Your task to perform on an android device: turn off picture-in-picture Image 0: 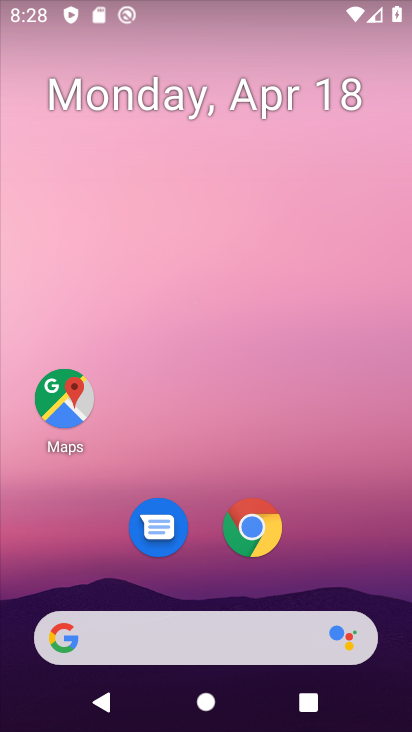
Step 0: drag from (202, 473) to (221, 1)
Your task to perform on an android device: turn off picture-in-picture Image 1: 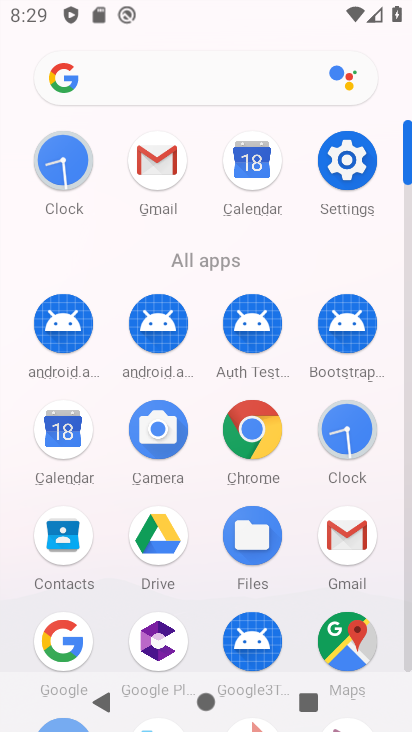
Step 1: click (348, 166)
Your task to perform on an android device: turn off picture-in-picture Image 2: 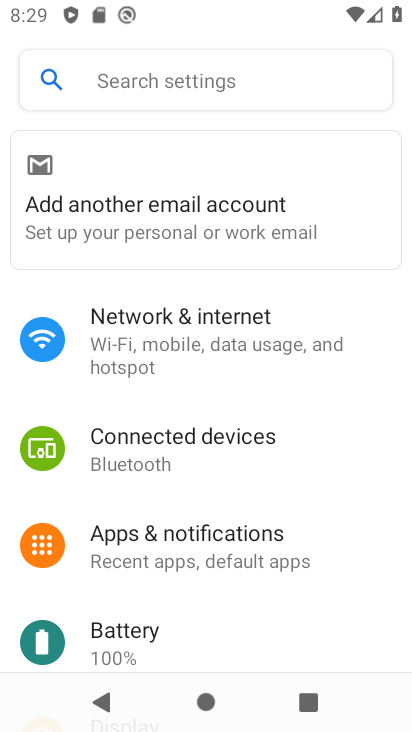
Step 2: click (187, 543)
Your task to perform on an android device: turn off picture-in-picture Image 3: 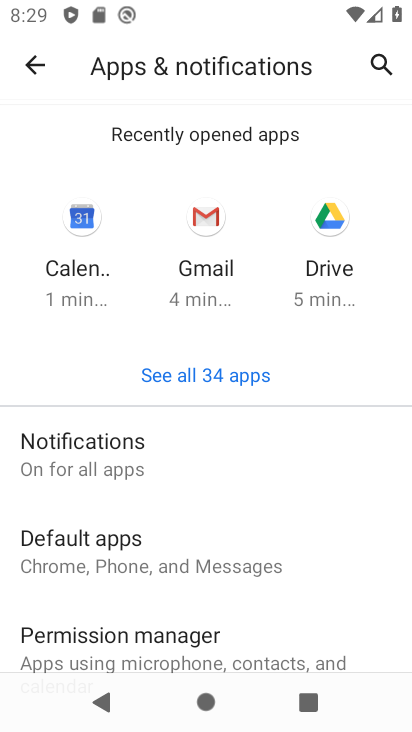
Step 3: drag from (191, 566) to (233, 206)
Your task to perform on an android device: turn off picture-in-picture Image 4: 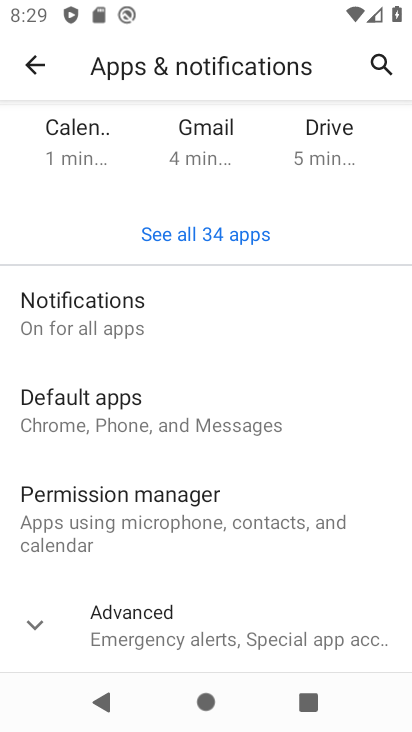
Step 4: click (208, 627)
Your task to perform on an android device: turn off picture-in-picture Image 5: 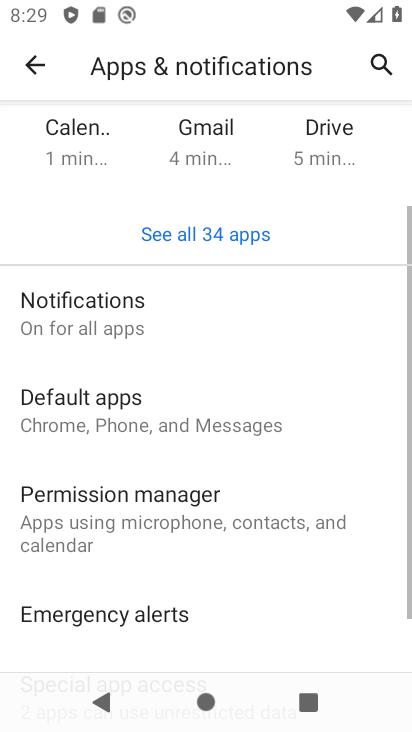
Step 5: drag from (212, 557) to (231, 237)
Your task to perform on an android device: turn off picture-in-picture Image 6: 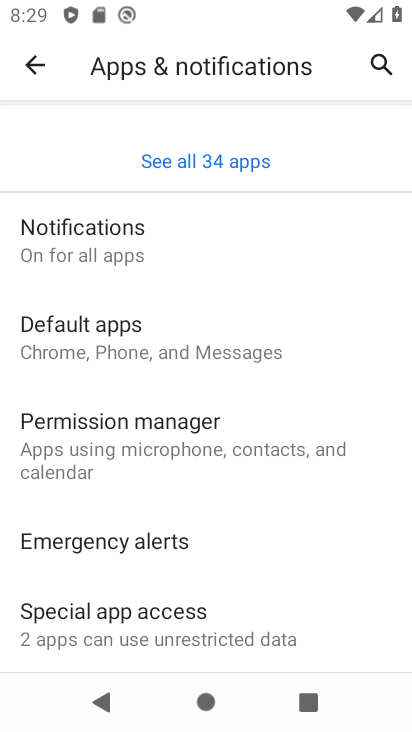
Step 6: click (200, 618)
Your task to perform on an android device: turn off picture-in-picture Image 7: 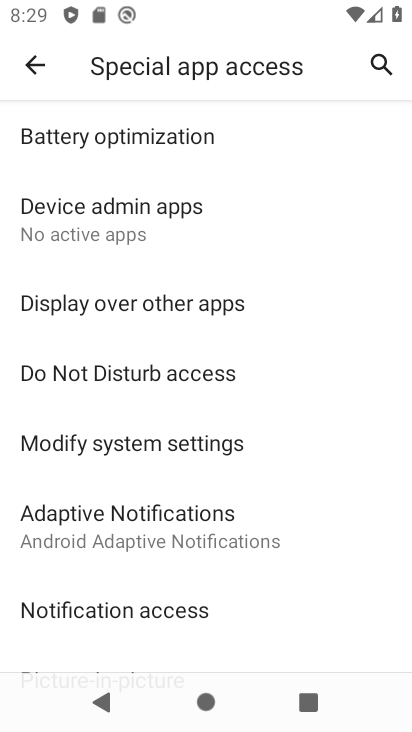
Step 7: drag from (188, 553) to (234, 158)
Your task to perform on an android device: turn off picture-in-picture Image 8: 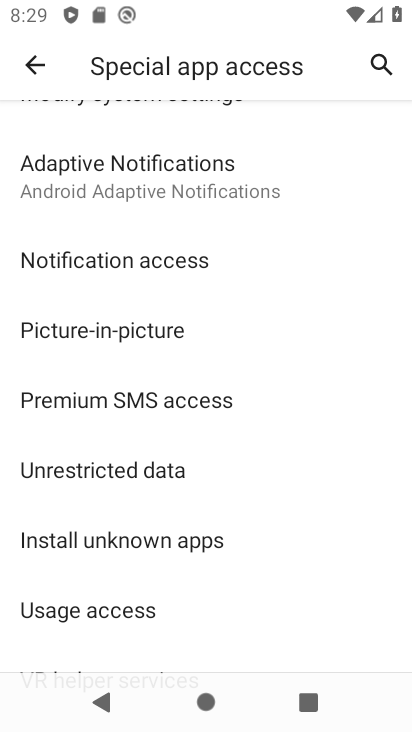
Step 8: click (176, 329)
Your task to perform on an android device: turn off picture-in-picture Image 9: 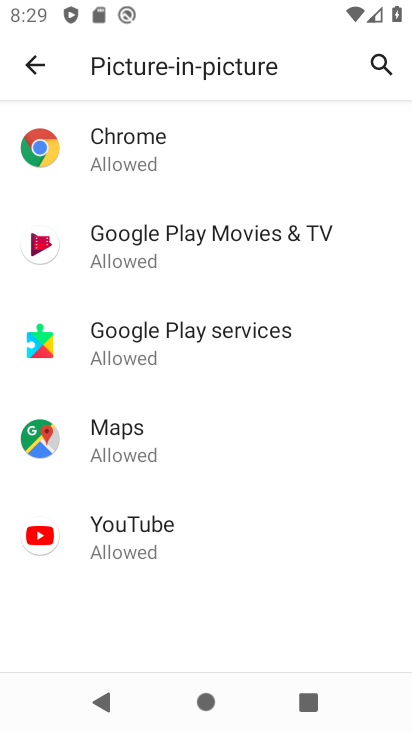
Step 9: click (183, 533)
Your task to perform on an android device: turn off picture-in-picture Image 10: 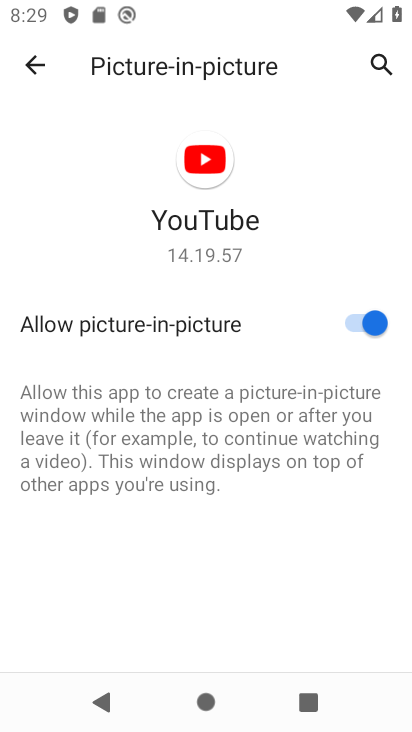
Step 10: click (368, 323)
Your task to perform on an android device: turn off picture-in-picture Image 11: 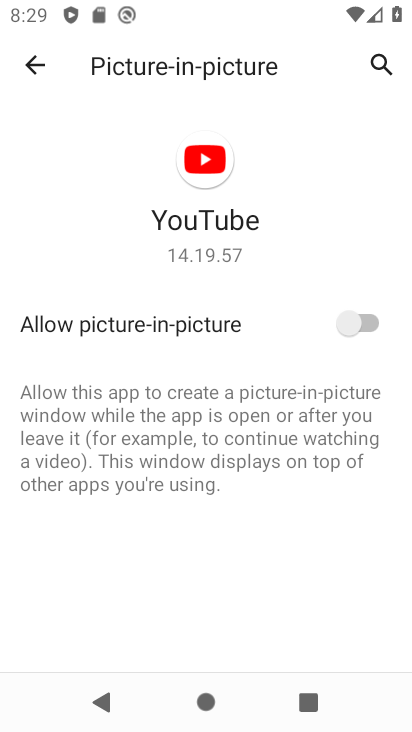
Step 11: task complete